Your task to perform on an android device: turn off data saver in the chrome app Image 0: 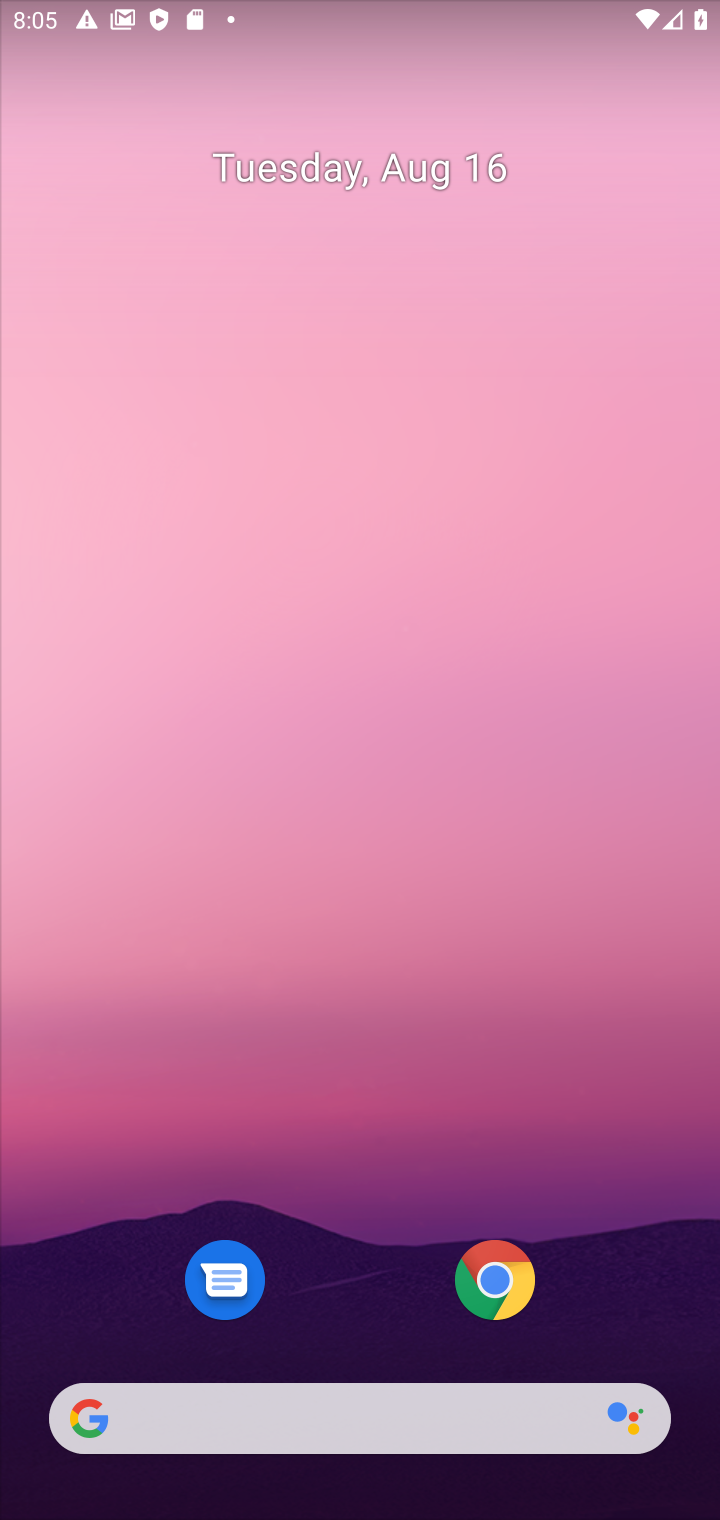
Step 0: drag from (333, 1108) to (355, 414)
Your task to perform on an android device: turn off data saver in the chrome app Image 1: 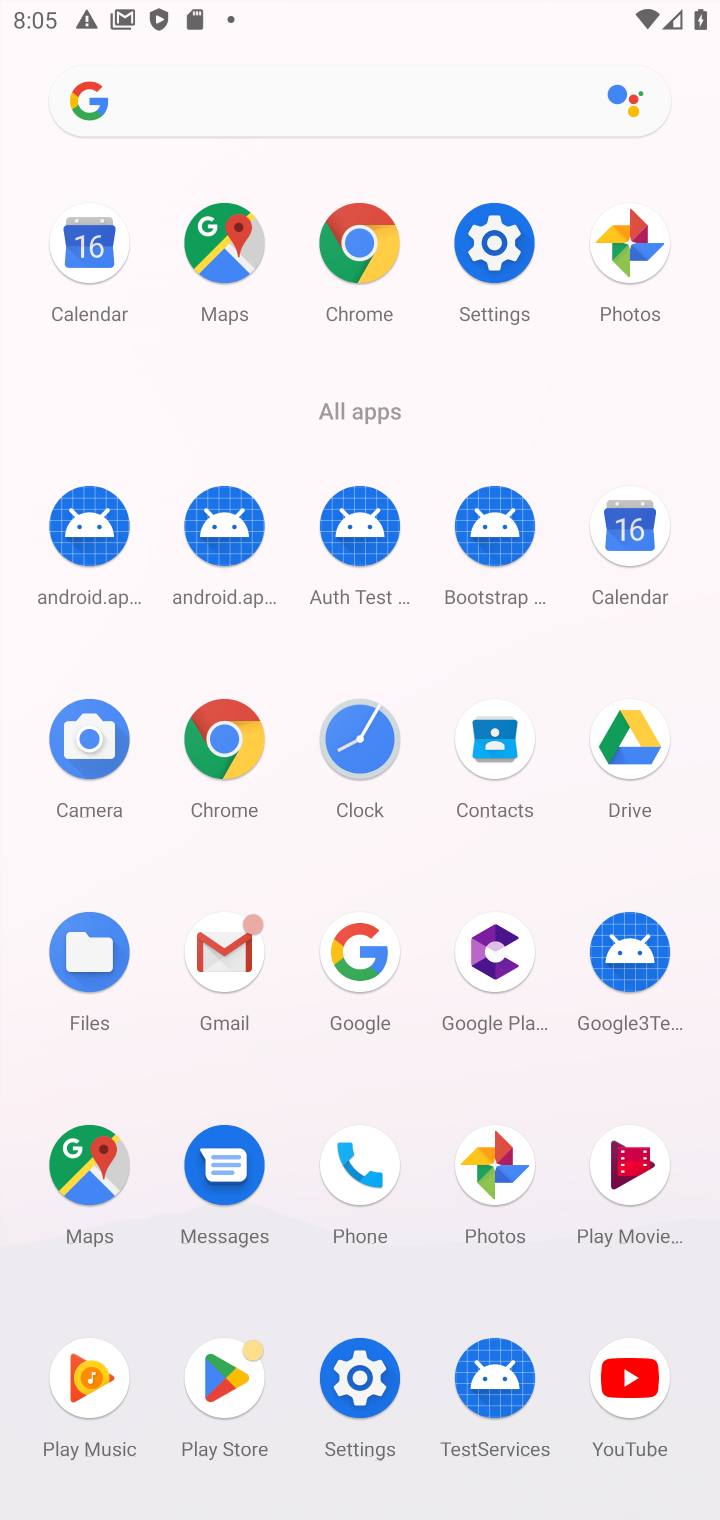
Step 1: click (227, 778)
Your task to perform on an android device: turn off data saver in the chrome app Image 2: 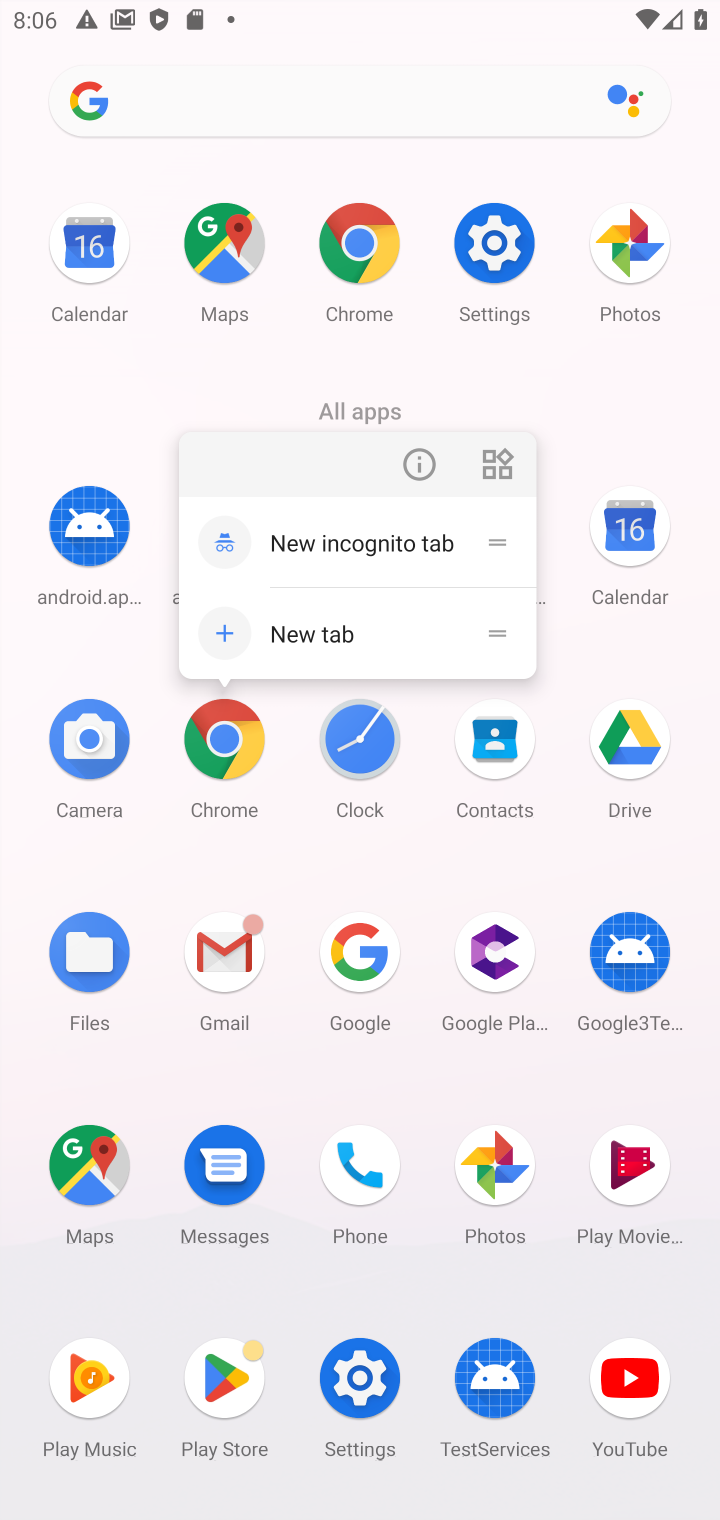
Step 2: click (231, 740)
Your task to perform on an android device: turn off data saver in the chrome app Image 3: 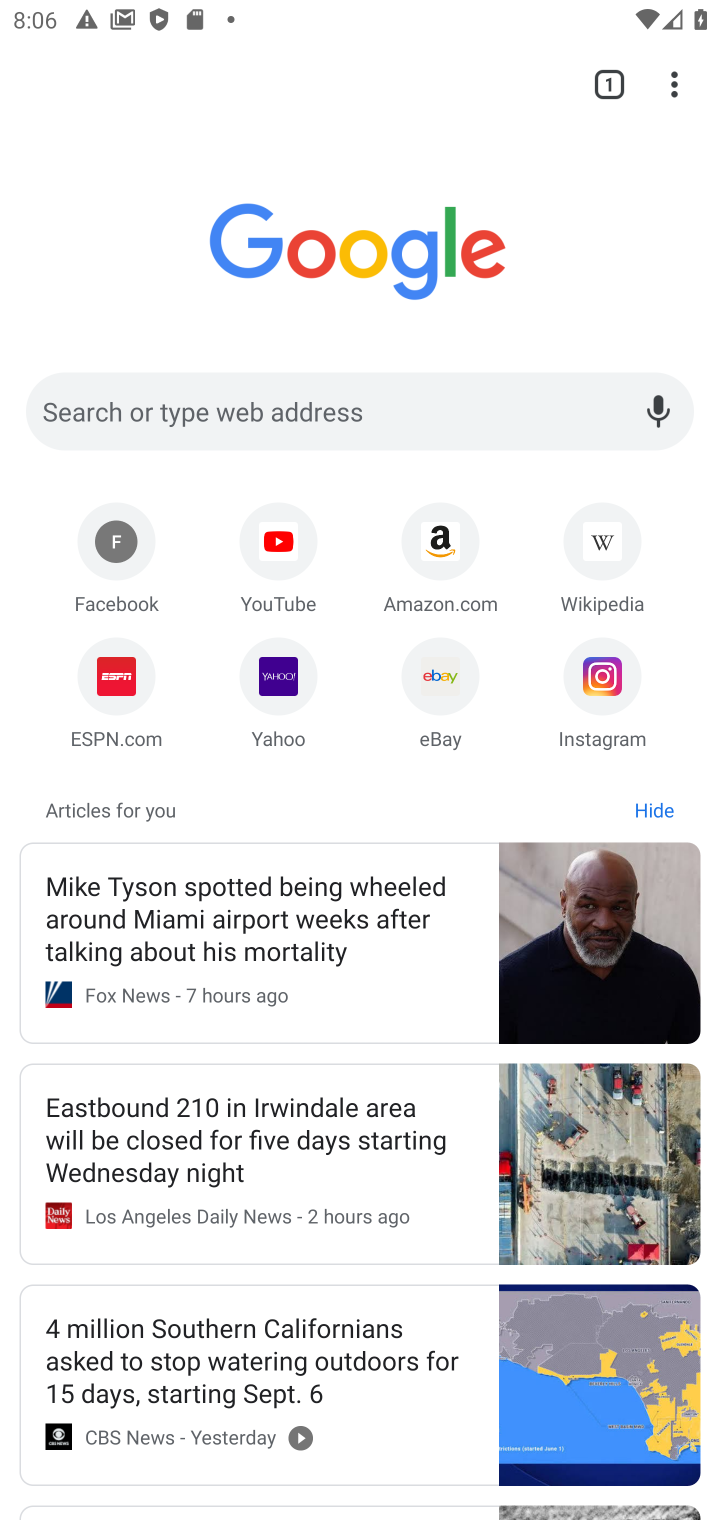
Step 3: click (659, 69)
Your task to perform on an android device: turn off data saver in the chrome app Image 4: 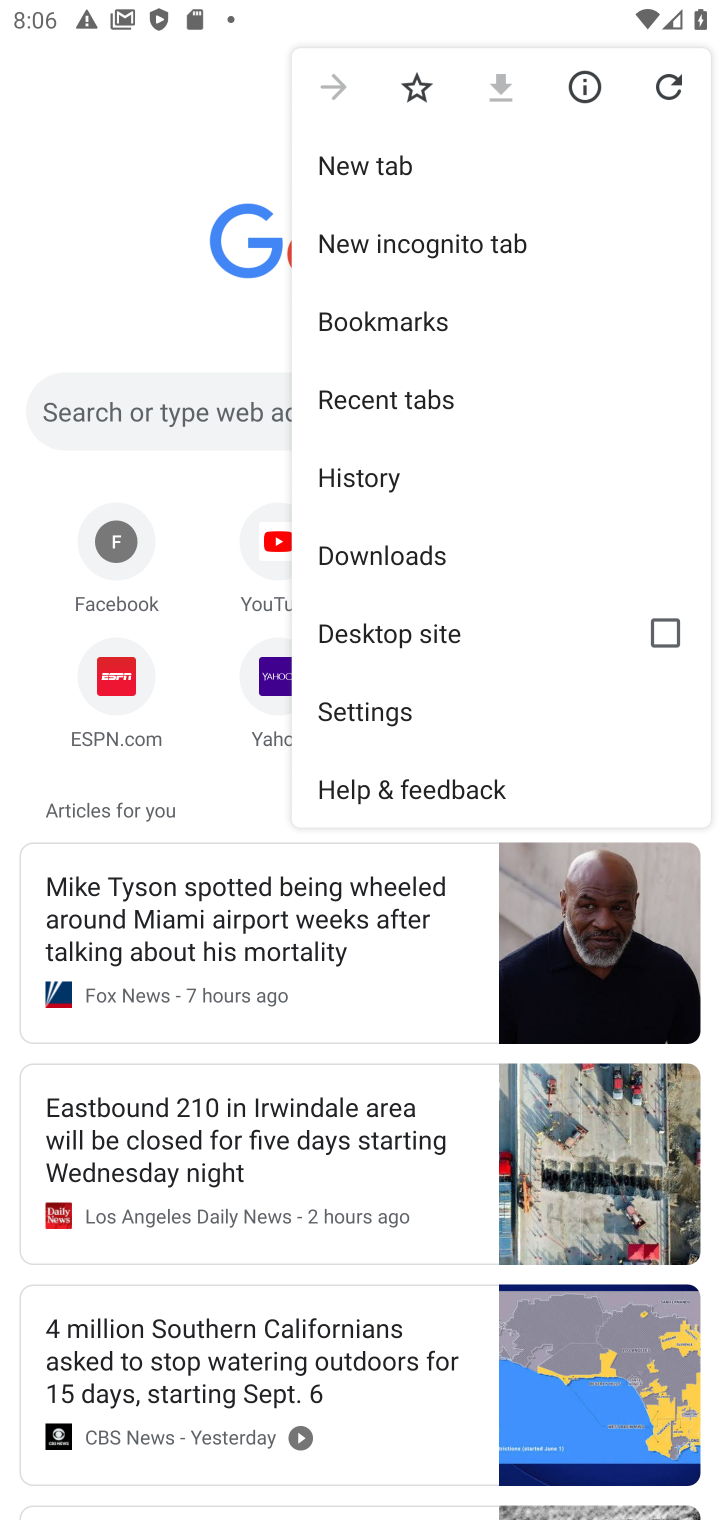
Step 4: click (382, 707)
Your task to perform on an android device: turn off data saver in the chrome app Image 5: 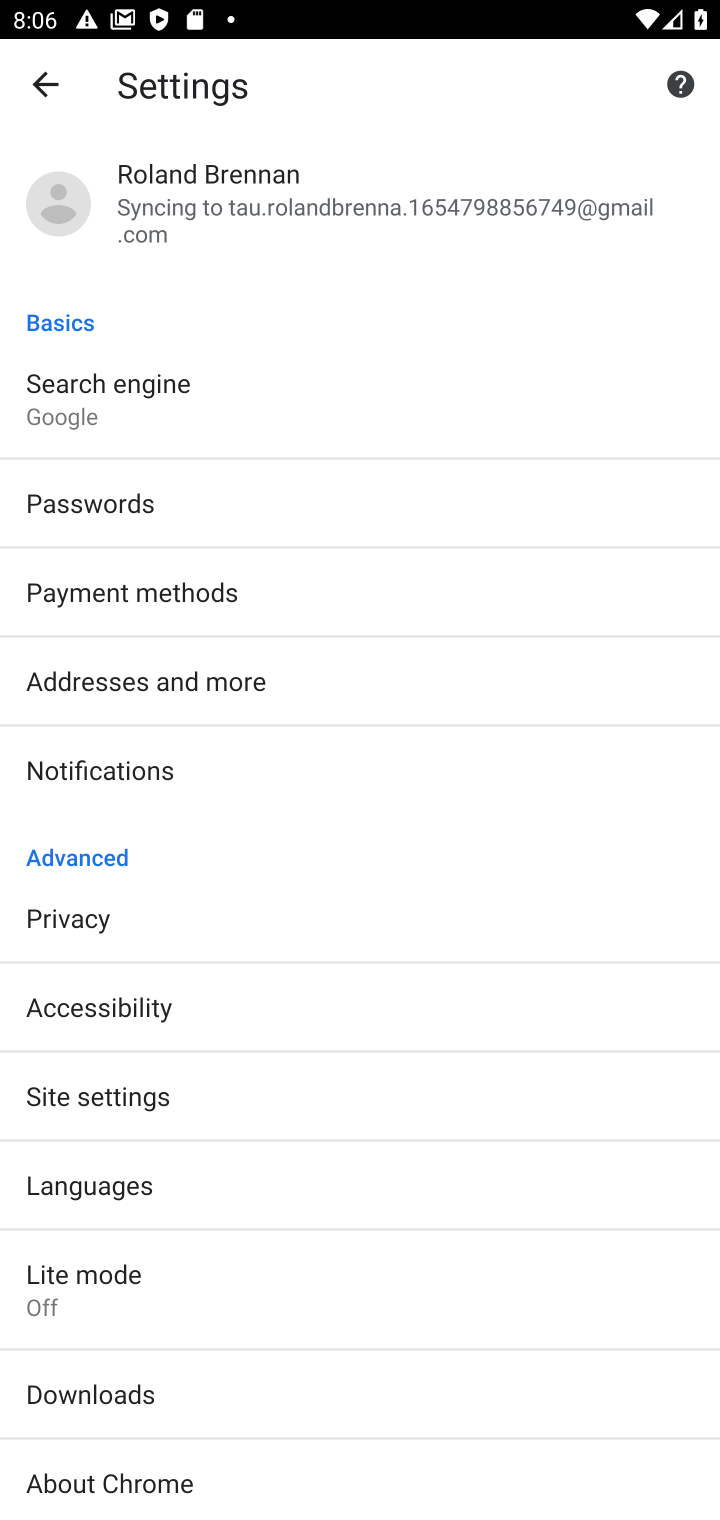
Step 5: click (94, 1288)
Your task to perform on an android device: turn off data saver in the chrome app Image 6: 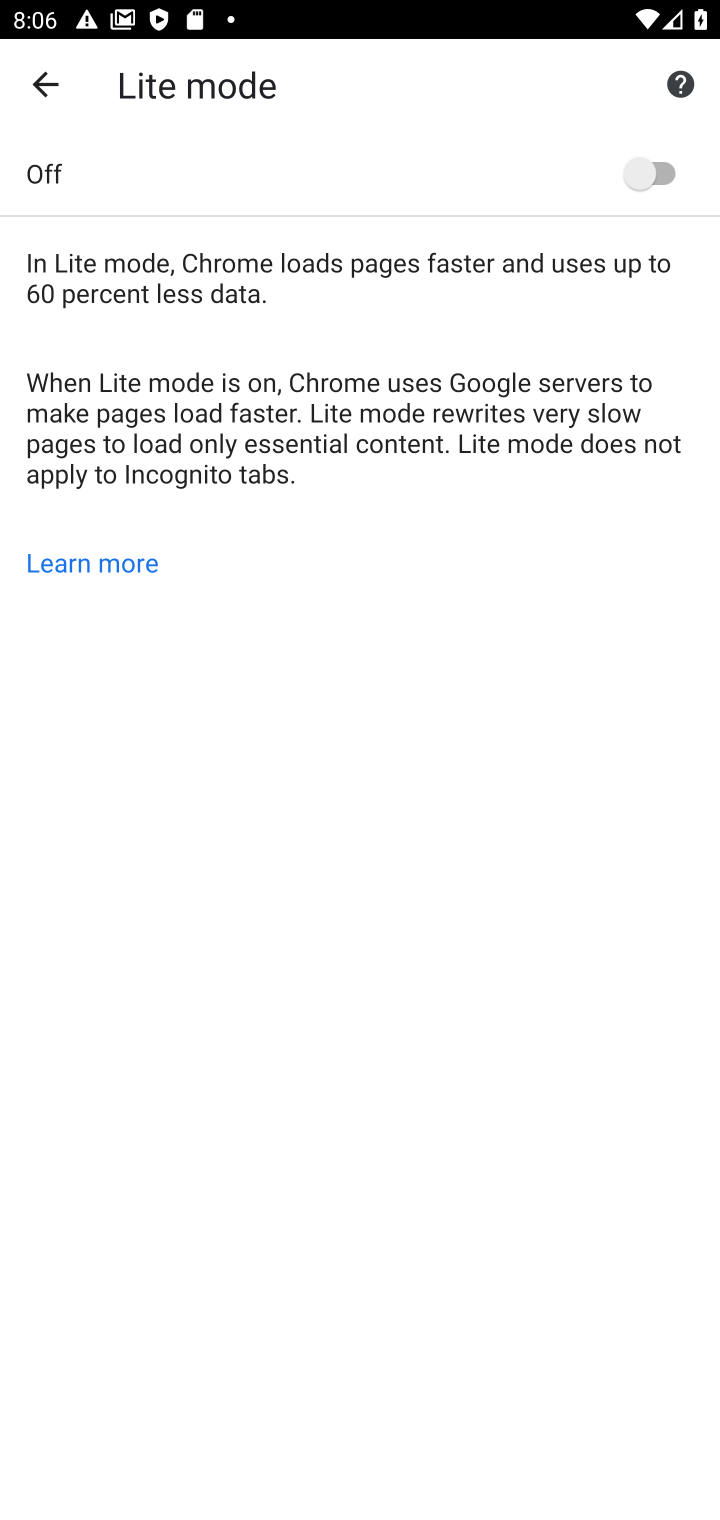
Step 6: task complete